Your task to perform on an android device: Go to Google Image 0: 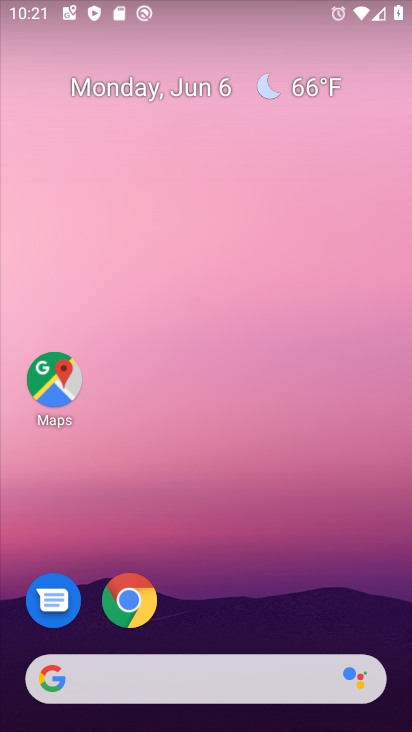
Step 0: click (61, 665)
Your task to perform on an android device: Go to Google Image 1: 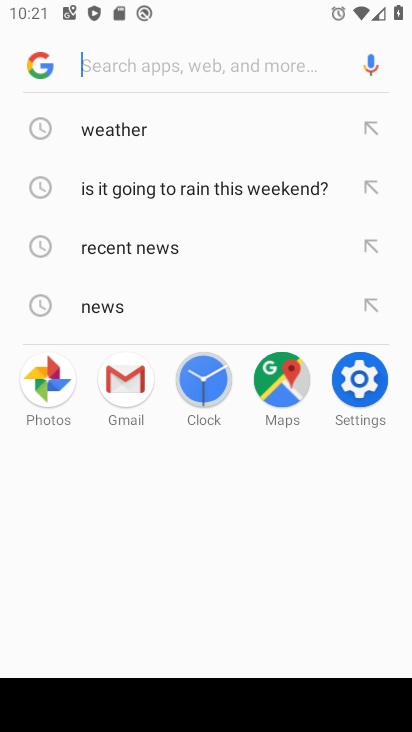
Step 1: click (39, 68)
Your task to perform on an android device: Go to Google Image 2: 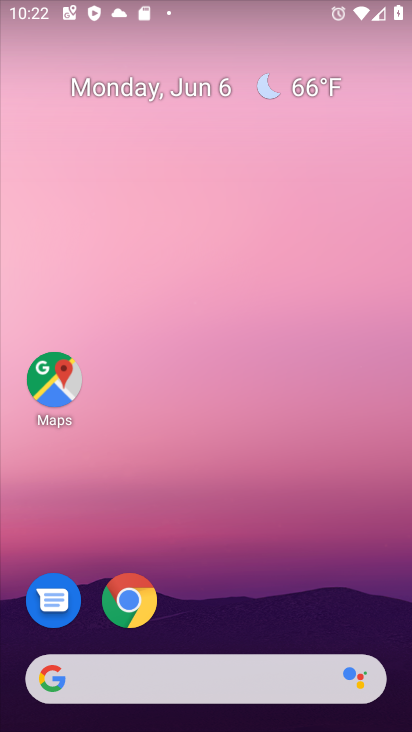
Step 2: click (40, 678)
Your task to perform on an android device: Go to Google Image 3: 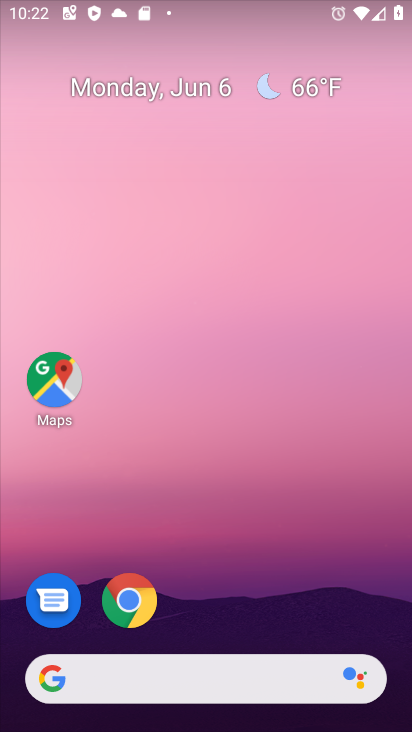
Step 3: click (166, 681)
Your task to perform on an android device: Go to Google Image 4: 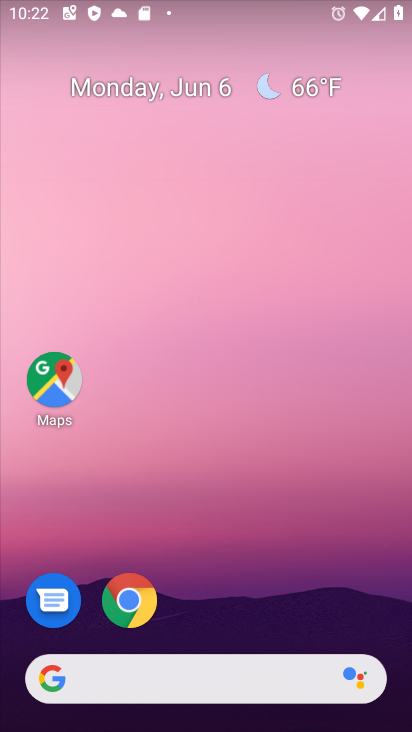
Step 4: click (118, 686)
Your task to perform on an android device: Go to Google Image 5: 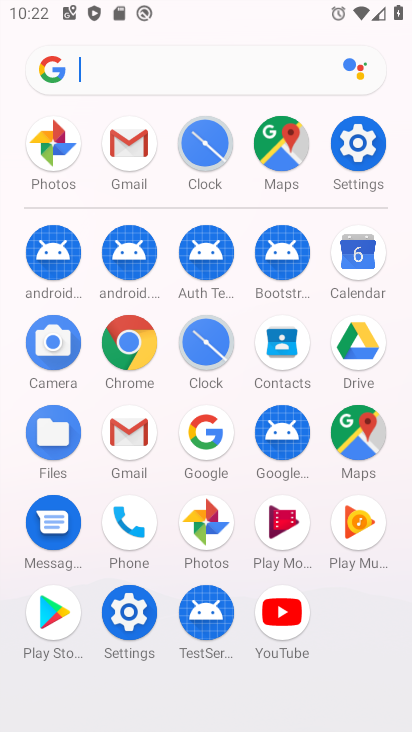
Step 5: task complete